Your task to perform on an android device: add a label to a message in the gmail app Image 0: 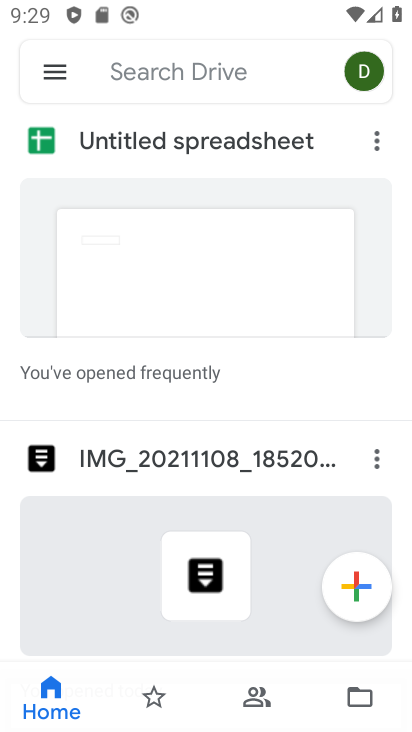
Step 0: press home button
Your task to perform on an android device: add a label to a message in the gmail app Image 1: 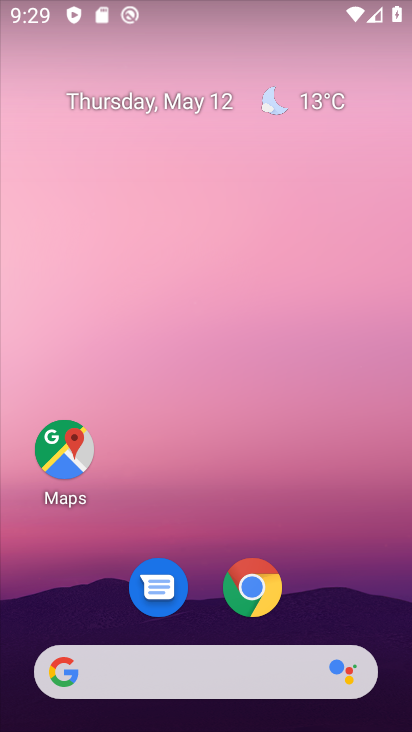
Step 1: drag from (338, 587) to (292, 29)
Your task to perform on an android device: add a label to a message in the gmail app Image 2: 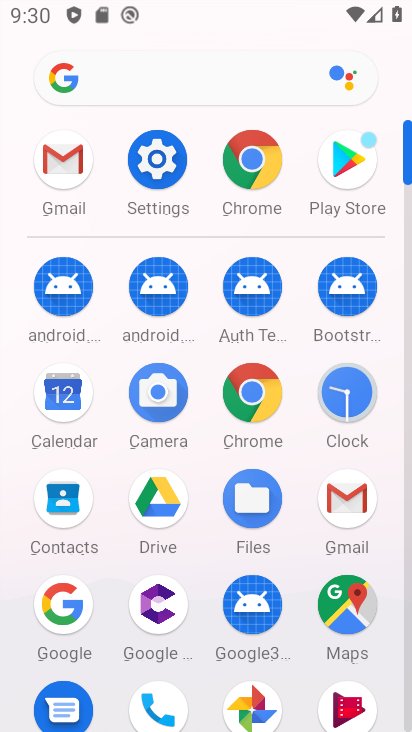
Step 2: click (57, 164)
Your task to perform on an android device: add a label to a message in the gmail app Image 3: 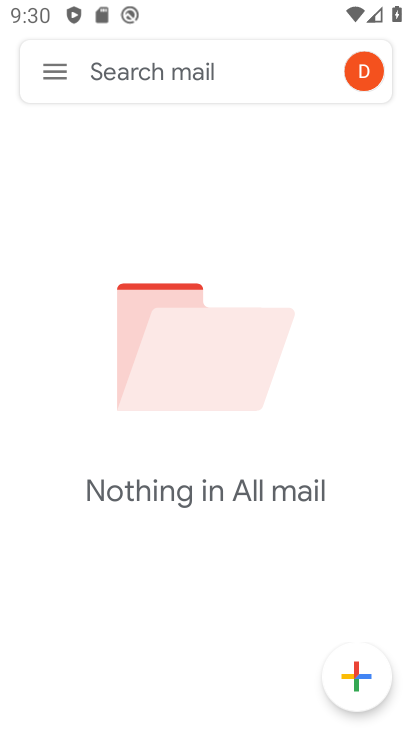
Step 3: task complete